Your task to perform on an android device: empty trash in the gmail app Image 0: 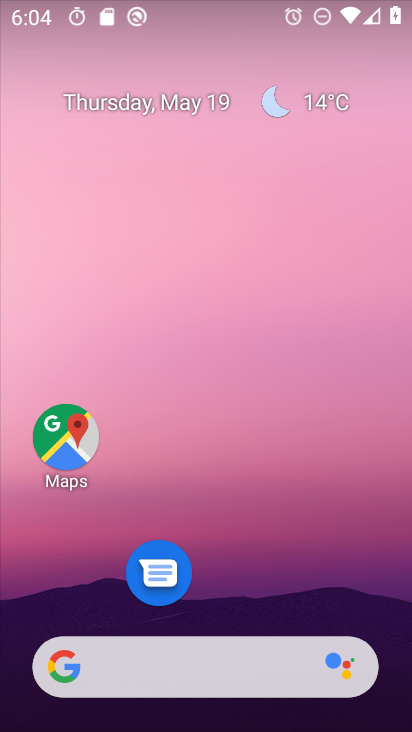
Step 0: drag from (249, 561) to (194, 20)
Your task to perform on an android device: empty trash in the gmail app Image 1: 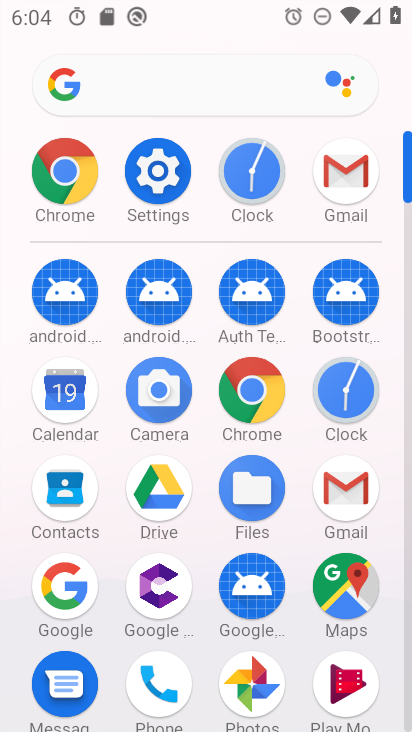
Step 1: click (356, 194)
Your task to perform on an android device: empty trash in the gmail app Image 2: 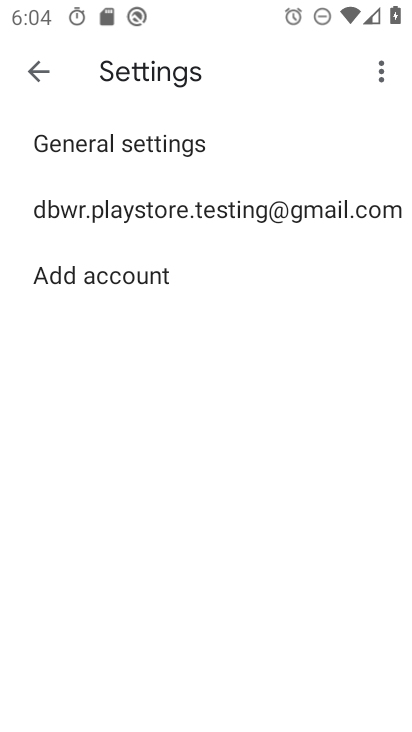
Step 2: click (260, 213)
Your task to perform on an android device: empty trash in the gmail app Image 3: 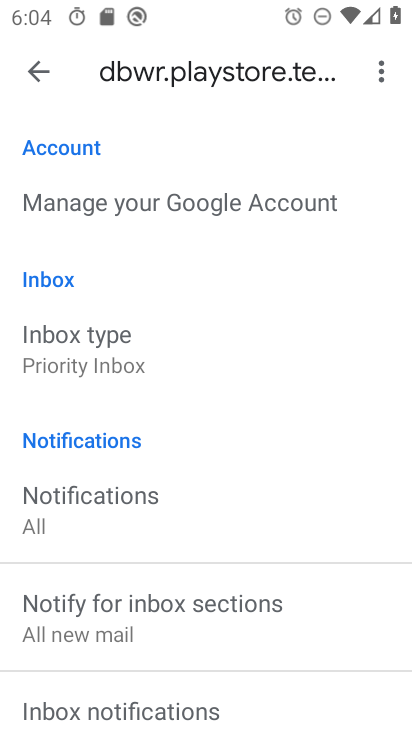
Step 3: click (32, 70)
Your task to perform on an android device: empty trash in the gmail app Image 4: 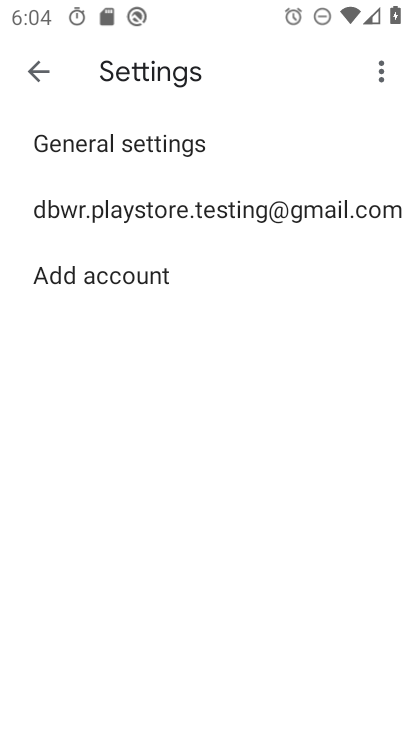
Step 4: click (32, 70)
Your task to perform on an android device: empty trash in the gmail app Image 5: 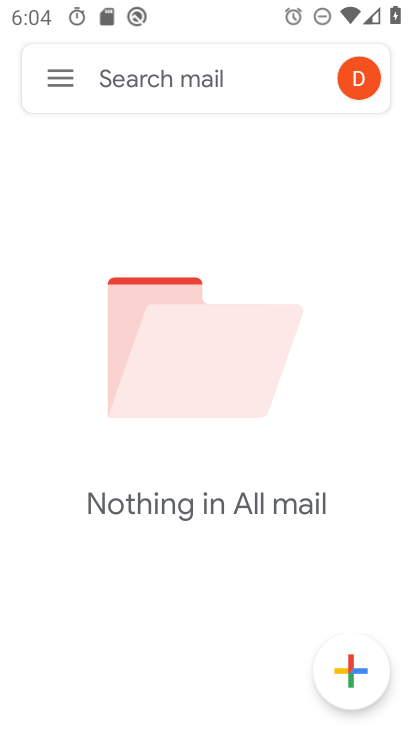
Step 5: click (62, 71)
Your task to perform on an android device: empty trash in the gmail app Image 6: 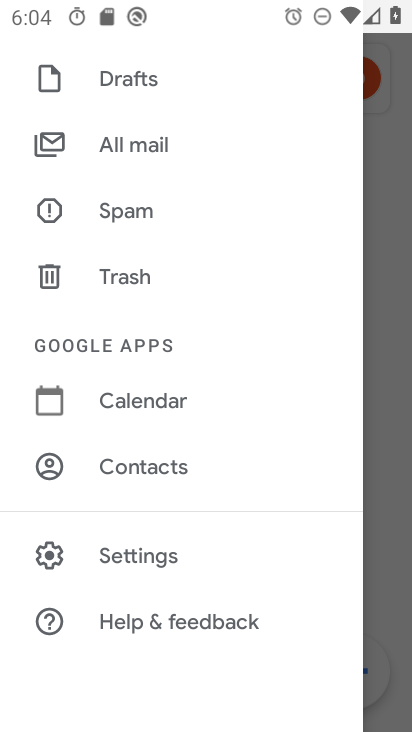
Step 6: click (128, 282)
Your task to perform on an android device: empty trash in the gmail app Image 7: 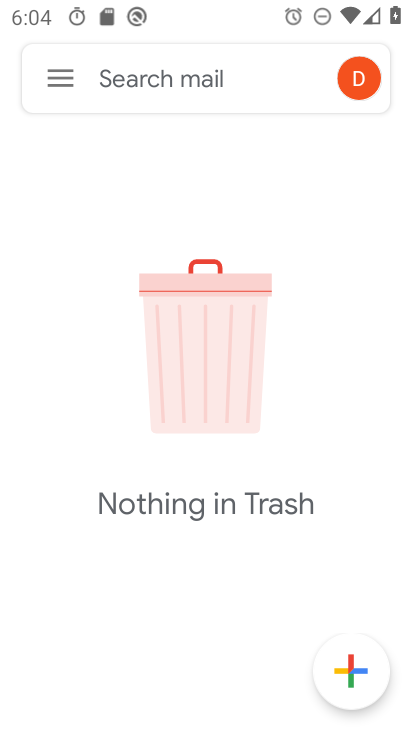
Step 7: task complete